Your task to perform on an android device: Go to display settings Image 0: 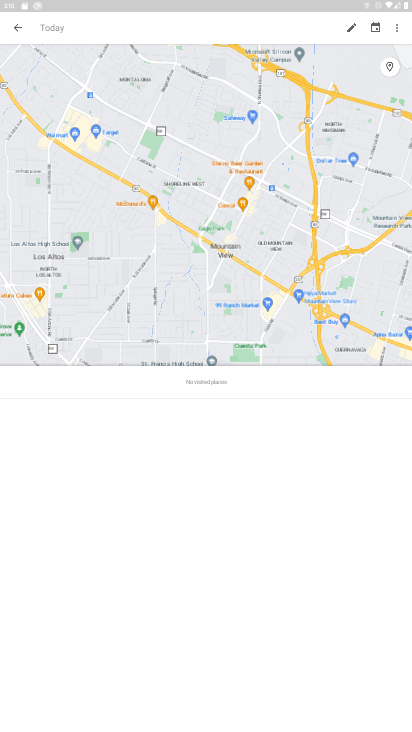
Step 0: click (224, 338)
Your task to perform on an android device: Go to display settings Image 1: 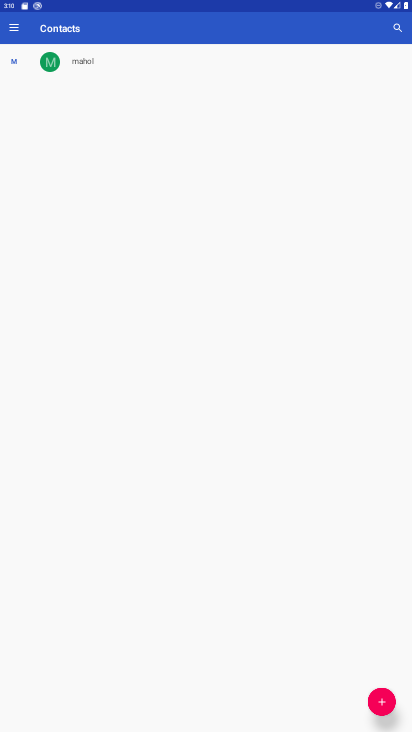
Step 1: press home button
Your task to perform on an android device: Go to display settings Image 2: 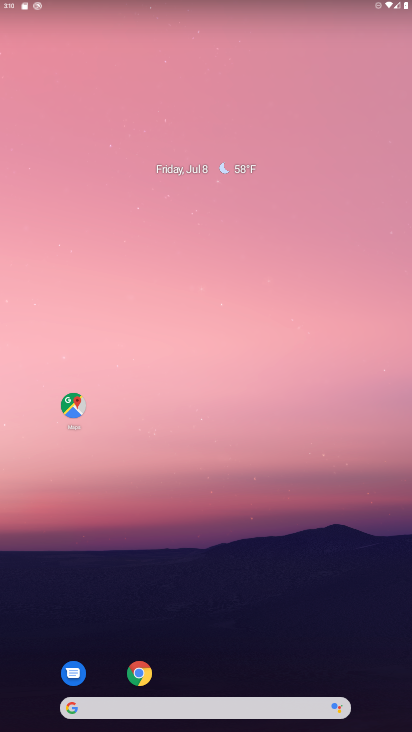
Step 2: drag from (210, 695) to (232, 361)
Your task to perform on an android device: Go to display settings Image 3: 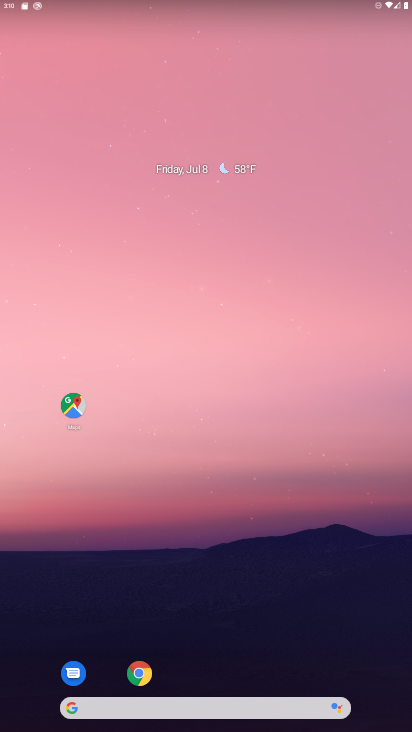
Step 3: drag from (238, 686) to (248, 291)
Your task to perform on an android device: Go to display settings Image 4: 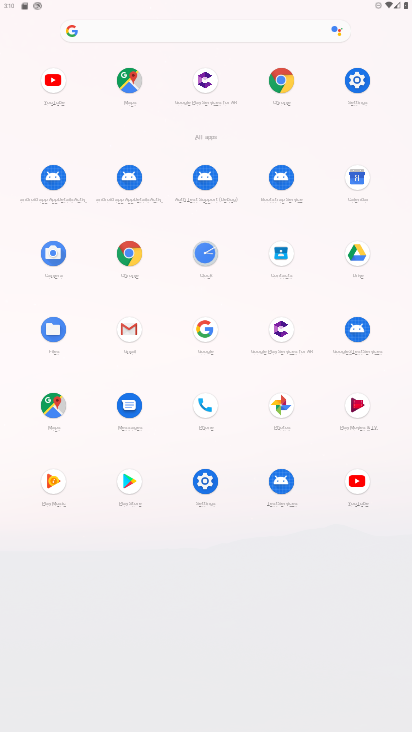
Step 4: click (352, 87)
Your task to perform on an android device: Go to display settings Image 5: 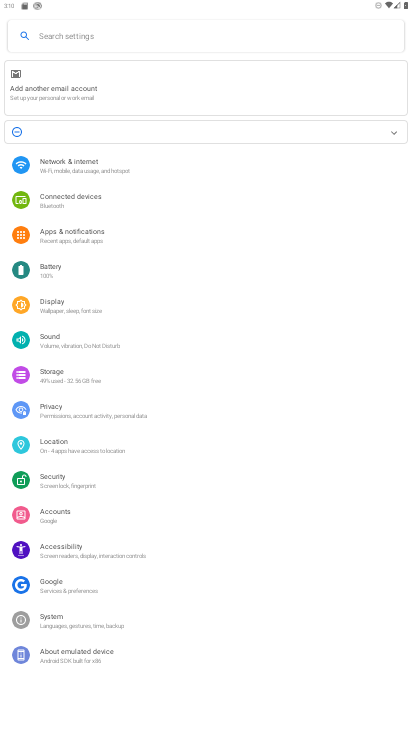
Step 5: click (66, 307)
Your task to perform on an android device: Go to display settings Image 6: 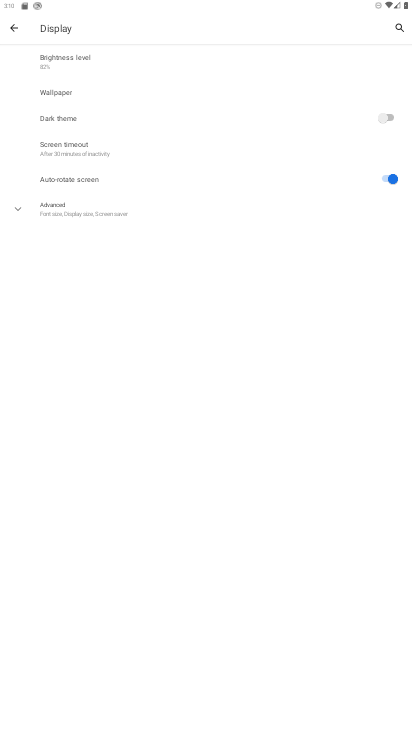
Step 6: click (62, 210)
Your task to perform on an android device: Go to display settings Image 7: 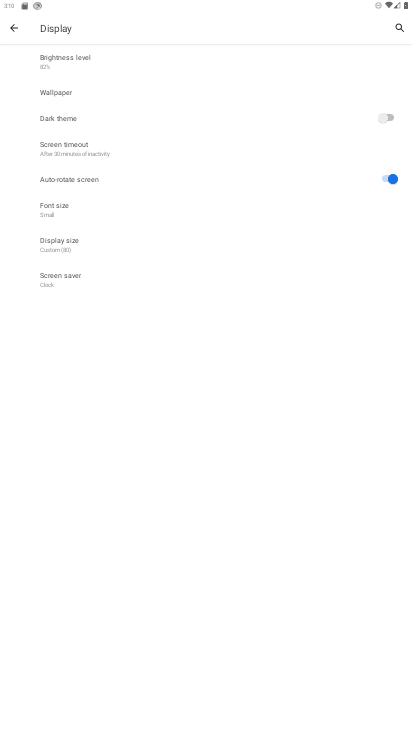
Step 7: task complete